Your task to perform on an android device: Show me popular videos on Youtube Image 0: 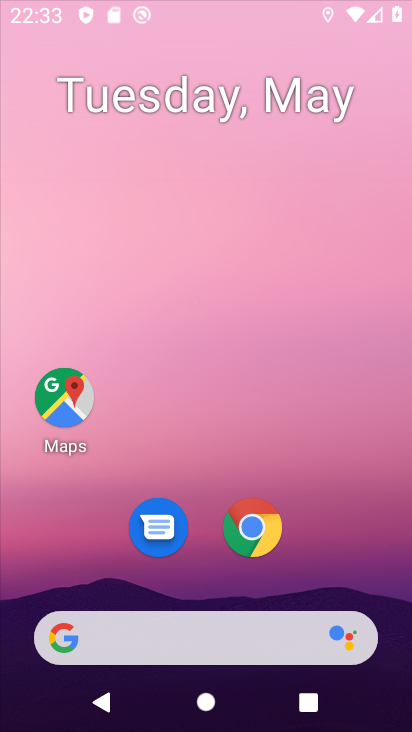
Step 0: click (283, 107)
Your task to perform on an android device: Show me popular videos on Youtube Image 1: 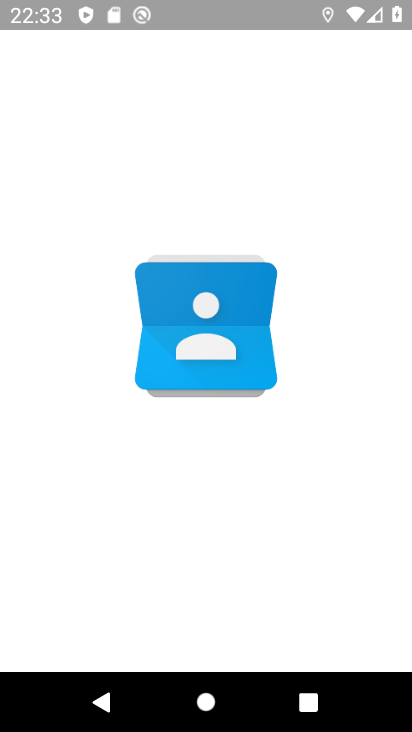
Step 1: drag from (263, 125) to (342, 545)
Your task to perform on an android device: Show me popular videos on Youtube Image 2: 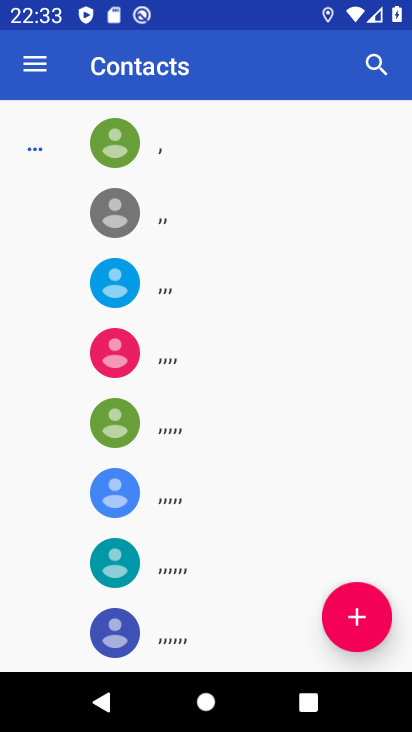
Step 2: press home button
Your task to perform on an android device: Show me popular videos on Youtube Image 3: 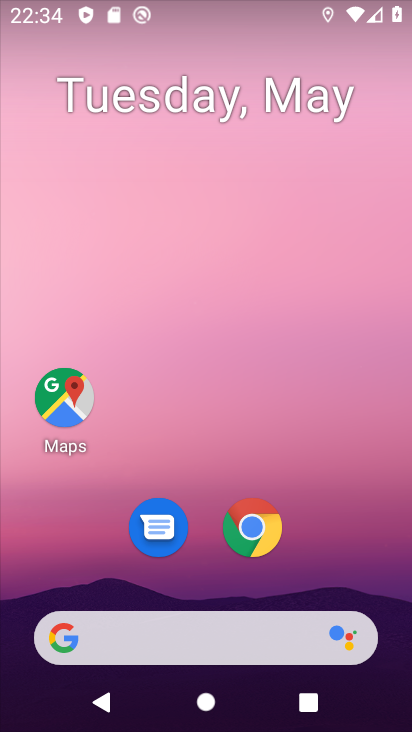
Step 3: drag from (210, 577) to (201, 55)
Your task to perform on an android device: Show me popular videos on Youtube Image 4: 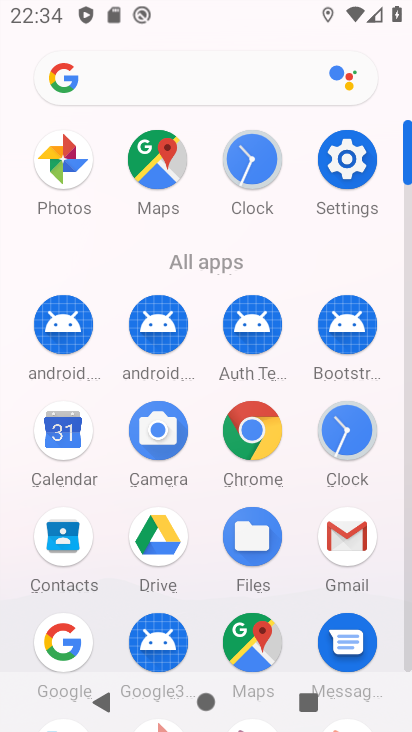
Step 4: drag from (207, 590) to (162, 186)
Your task to perform on an android device: Show me popular videos on Youtube Image 5: 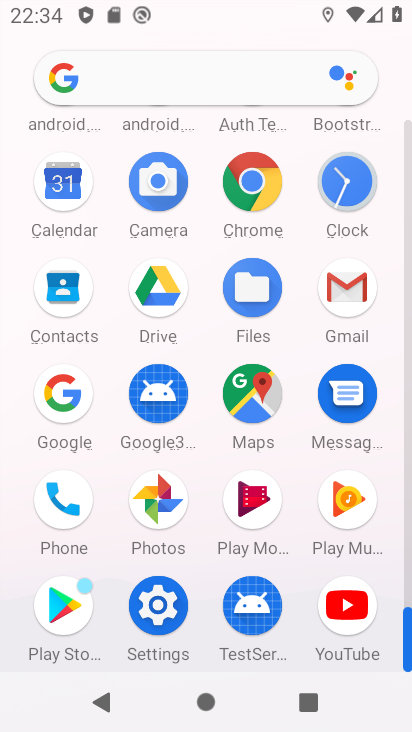
Step 5: click (337, 599)
Your task to perform on an android device: Show me popular videos on Youtube Image 6: 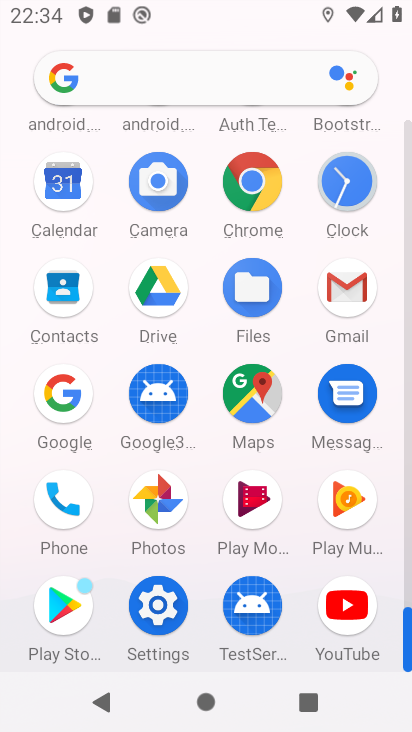
Step 6: click (337, 599)
Your task to perform on an android device: Show me popular videos on Youtube Image 7: 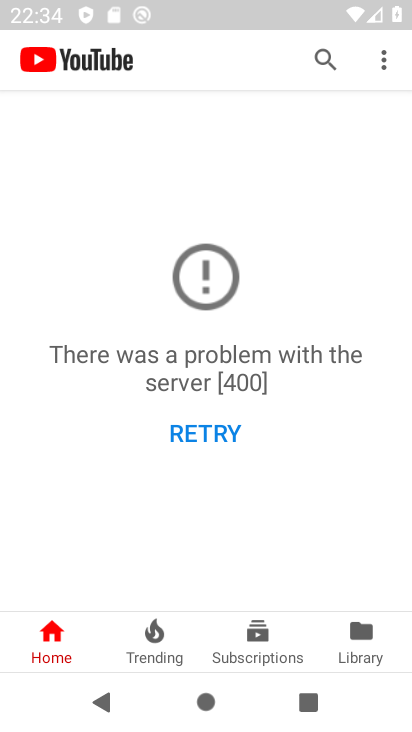
Step 7: click (341, 618)
Your task to perform on an android device: Show me popular videos on Youtube Image 8: 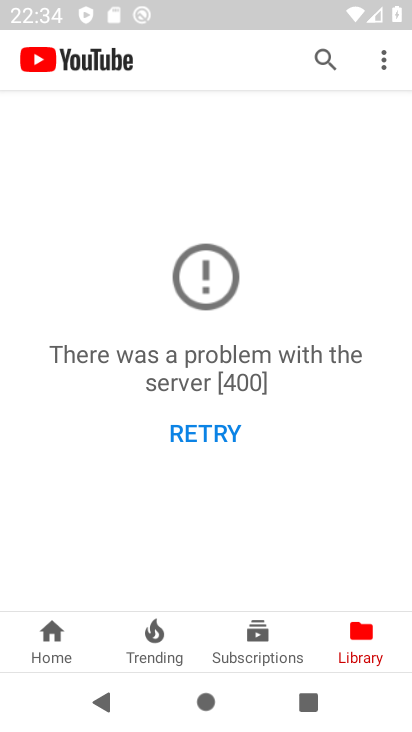
Step 8: drag from (212, 559) to (236, 358)
Your task to perform on an android device: Show me popular videos on Youtube Image 9: 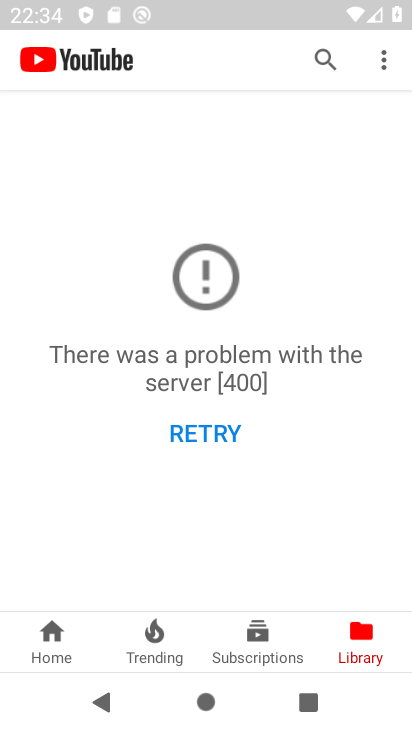
Step 9: drag from (235, 497) to (283, 293)
Your task to perform on an android device: Show me popular videos on Youtube Image 10: 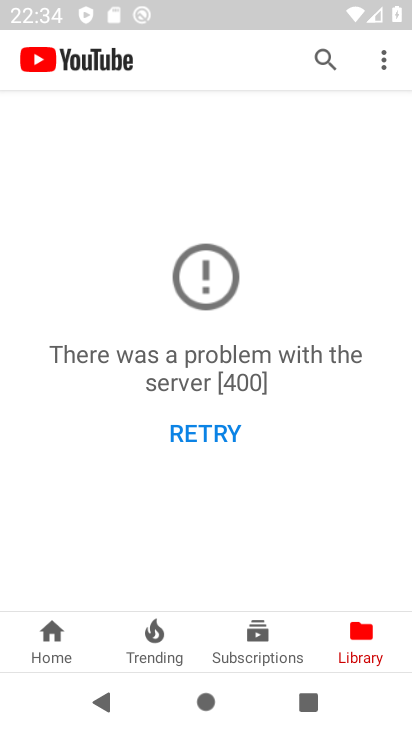
Step 10: drag from (256, 501) to (271, 409)
Your task to perform on an android device: Show me popular videos on Youtube Image 11: 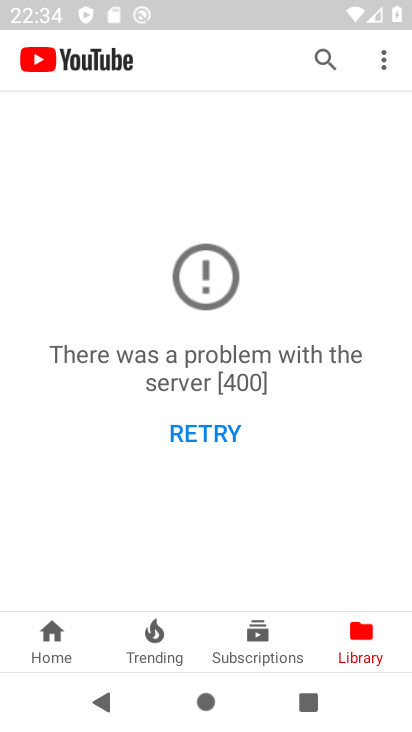
Step 11: drag from (197, 573) to (204, 460)
Your task to perform on an android device: Show me popular videos on Youtube Image 12: 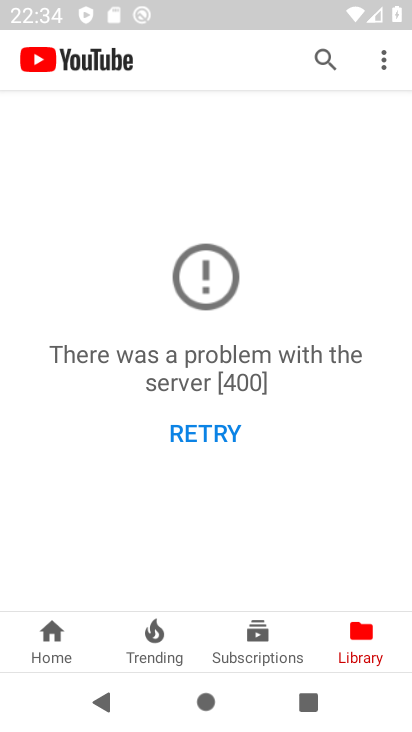
Step 12: click (181, 423)
Your task to perform on an android device: Show me popular videos on Youtube Image 13: 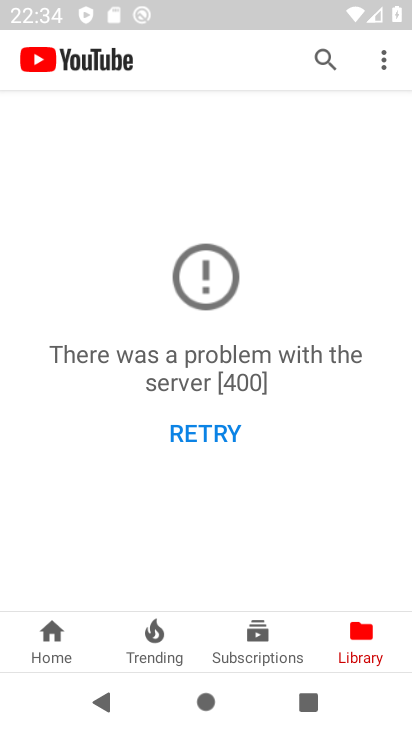
Step 13: click (181, 423)
Your task to perform on an android device: Show me popular videos on Youtube Image 14: 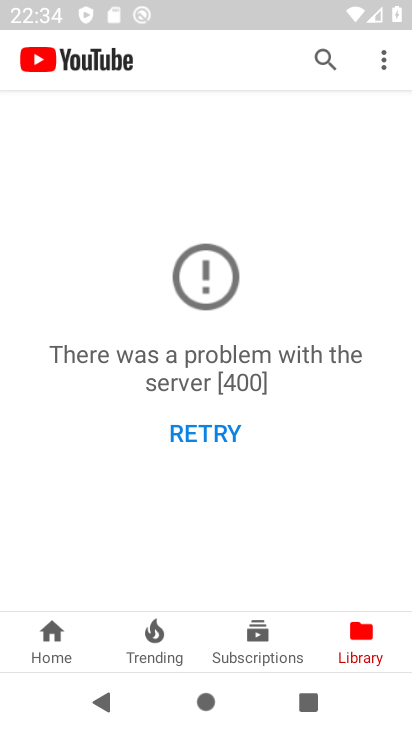
Step 14: task complete